Your task to perform on an android device: turn on the 24-hour format for clock Image 0: 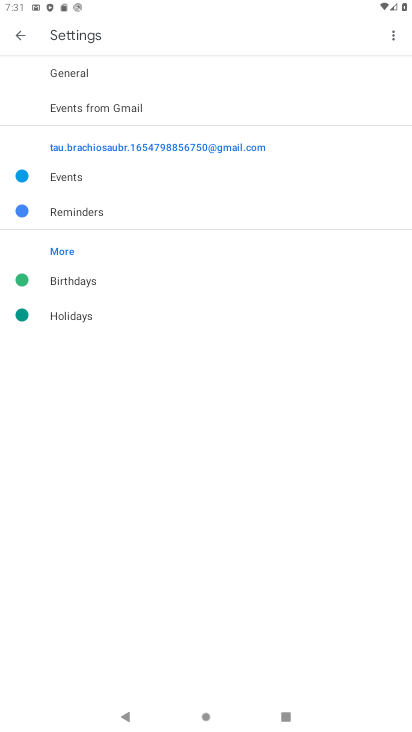
Step 0: press home button
Your task to perform on an android device: turn on the 24-hour format for clock Image 1: 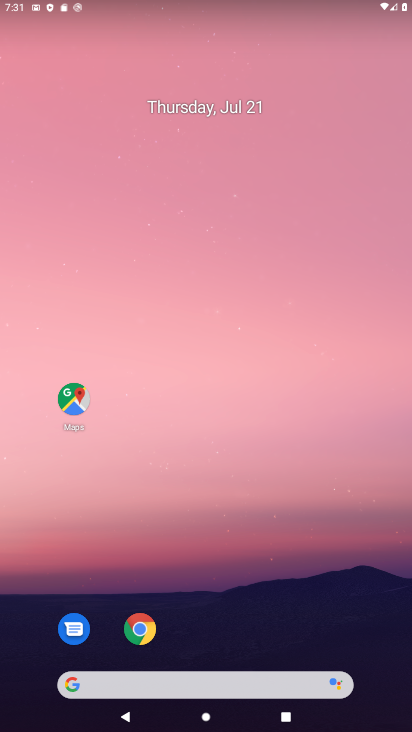
Step 1: drag from (27, 578) to (230, 101)
Your task to perform on an android device: turn on the 24-hour format for clock Image 2: 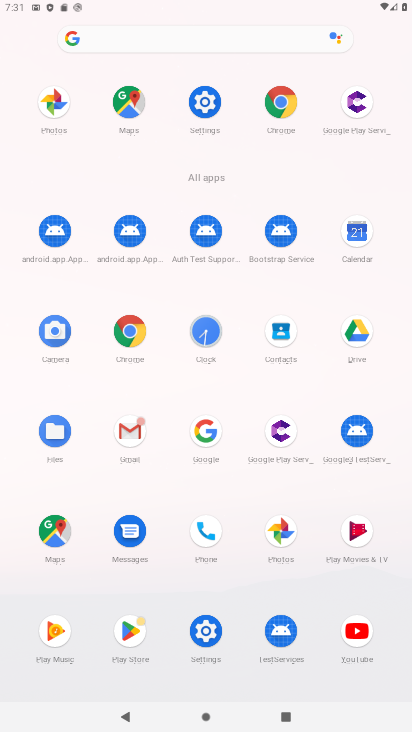
Step 2: click (212, 336)
Your task to perform on an android device: turn on the 24-hour format for clock Image 3: 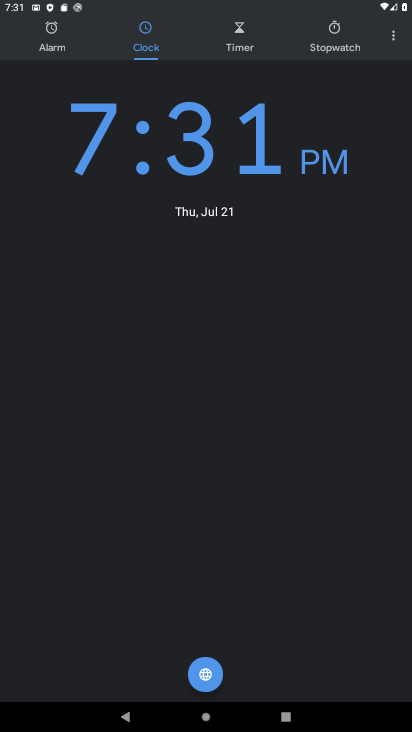
Step 3: click (398, 36)
Your task to perform on an android device: turn on the 24-hour format for clock Image 4: 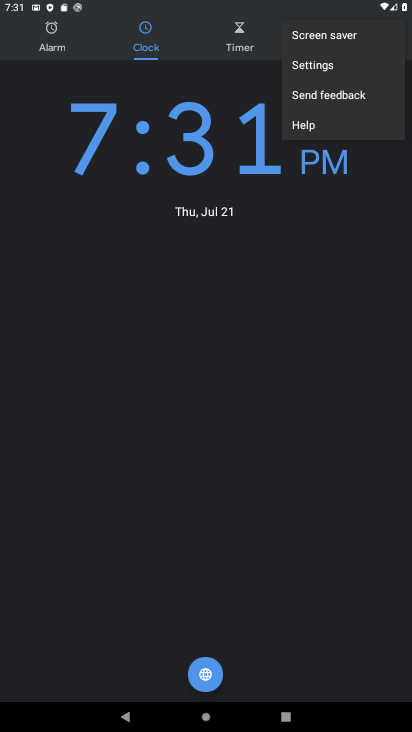
Step 4: click (319, 67)
Your task to perform on an android device: turn on the 24-hour format for clock Image 5: 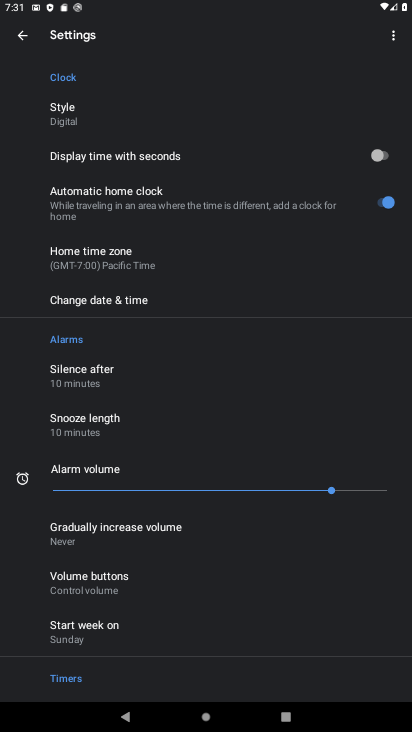
Step 5: click (134, 300)
Your task to perform on an android device: turn on the 24-hour format for clock Image 6: 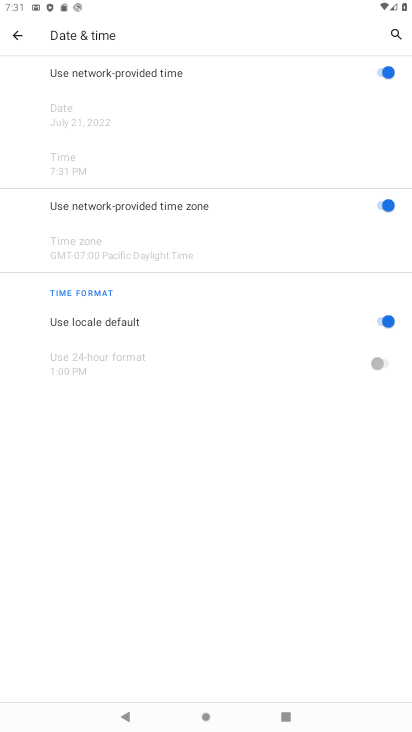
Step 6: click (389, 316)
Your task to perform on an android device: turn on the 24-hour format for clock Image 7: 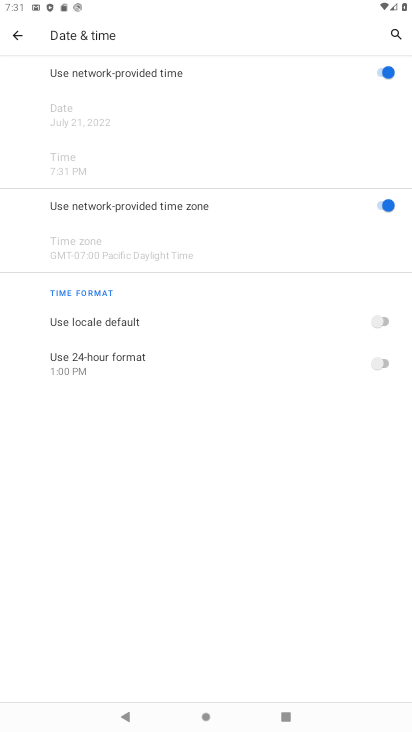
Step 7: click (384, 368)
Your task to perform on an android device: turn on the 24-hour format for clock Image 8: 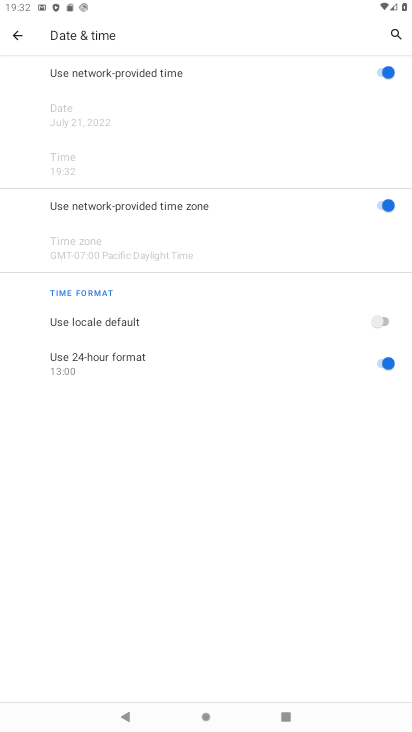
Step 8: task complete